Your task to perform on an android device: find photos in the google photos app Image 0: 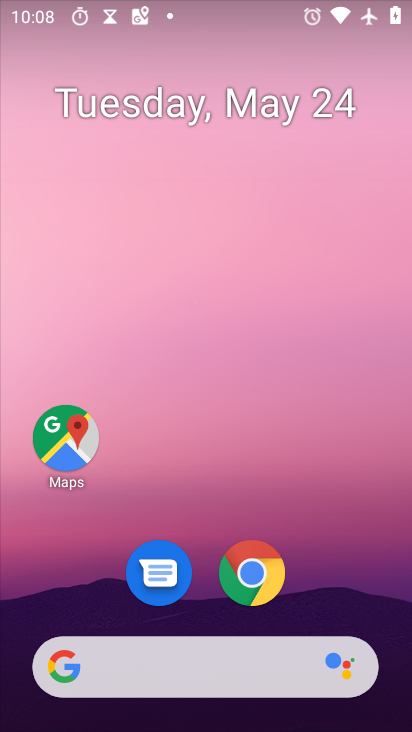
Step 0: drag from (329, 553) to (291, 22)
Your task to perform on an android device: find photos in the google photos app Image 1: 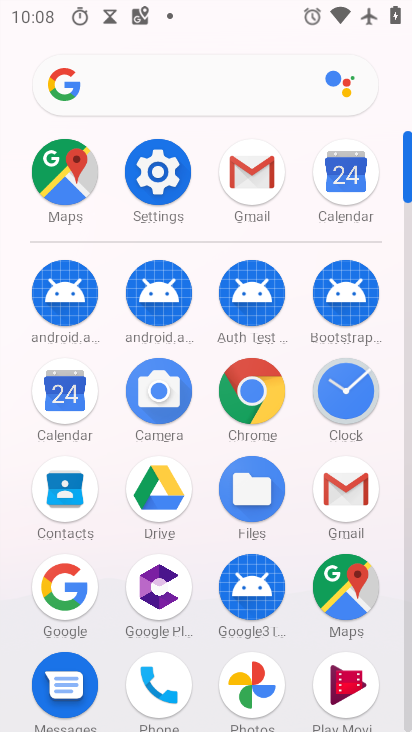
Step 1: click (247, 679)
Your task to perform on an android device: find photos in the google photos app Image 2: 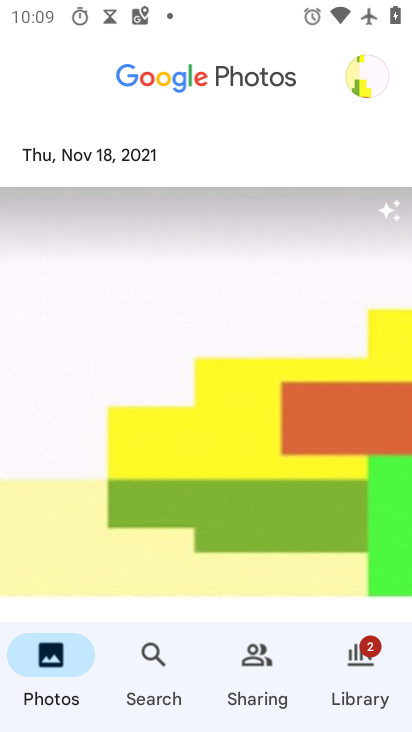
Step 2: task complete